Your task to perform on an android device: turn off priority inbox in the gmail app Image 0: 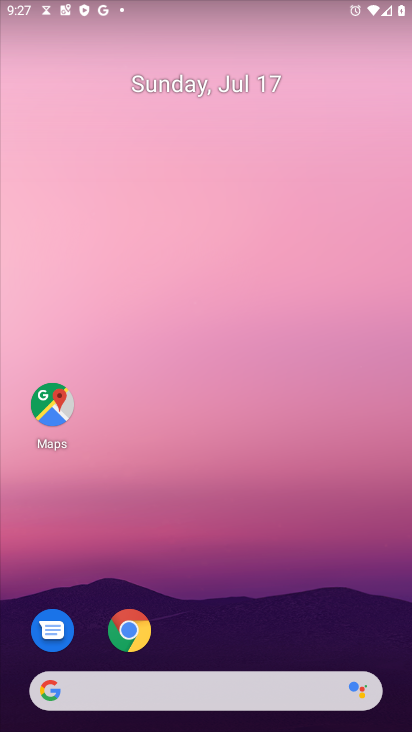
Step 0: drag from (180, 362) to (172, 105)
Your task to perform on an android device: turn off priority inbox in the gmail app Image 1: 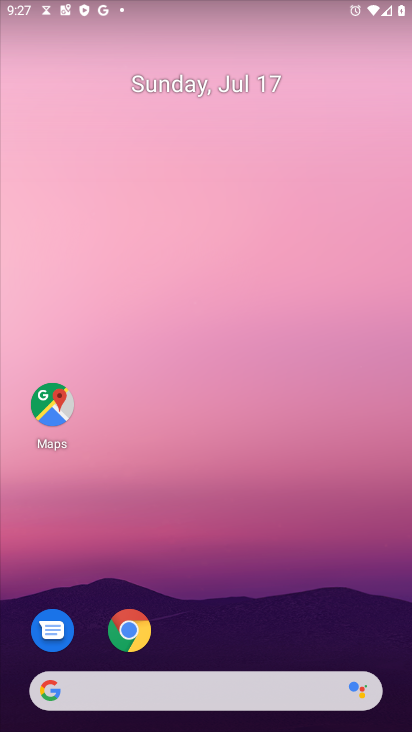
Step 1: drag from (200, 609) to (184, 143)
Your task to perform on an android device: turn off priority inbox in the gmail app Image 2: 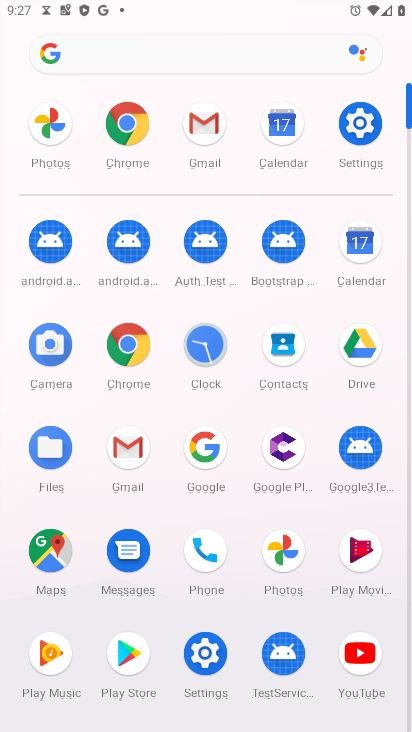
Step 2: click (217, 123)
Your task to perform on an android device: turn off priority inbox in the gmail app Image 3: 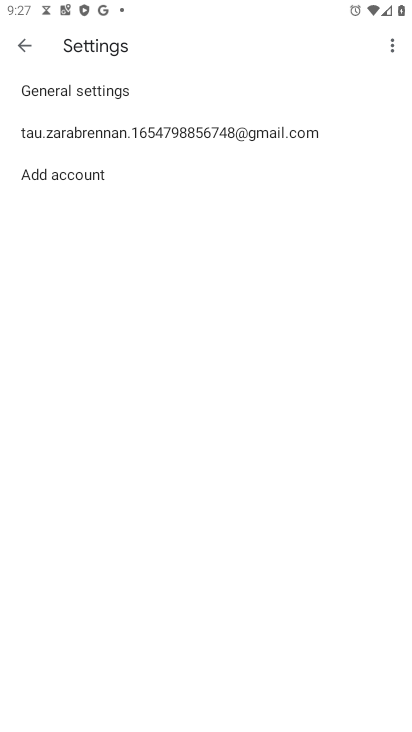
Step 3: click (177, 139)
Your task to perform on an android device: turn off priority inbox in the gmail app Image 4: 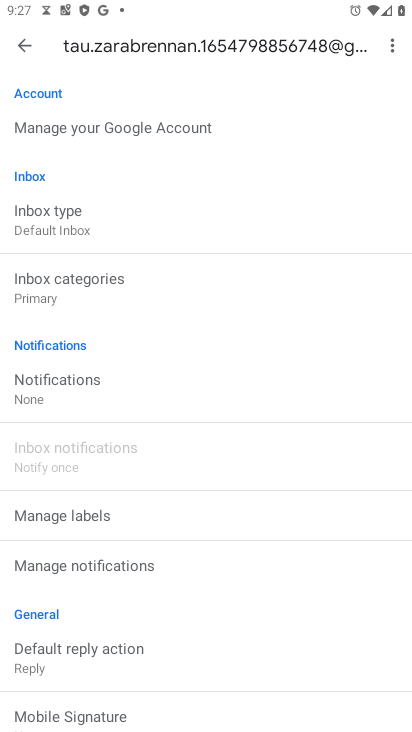
Step 4: click (54, 223)
Your task to perform on an android device: turn off priority inbox in the gmail app Image 5: 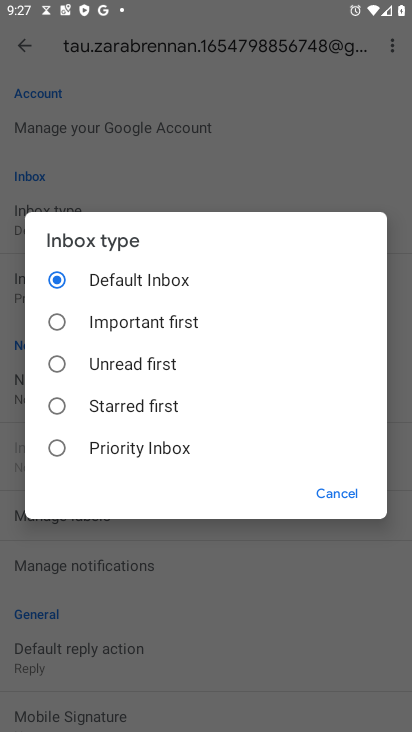
Step 5: click (57, 441)
Your task to perform on an android device: turn off priority inbox in the gmail app Image 6: 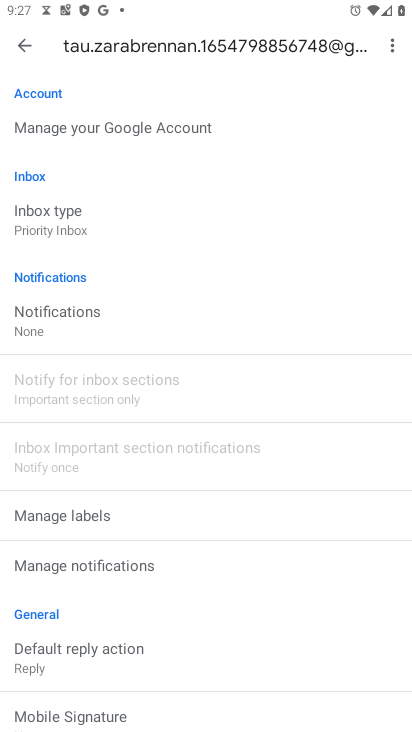
Step 6: task complete